Your task to perform on an android device: change your default location settings in chrome Image 0: 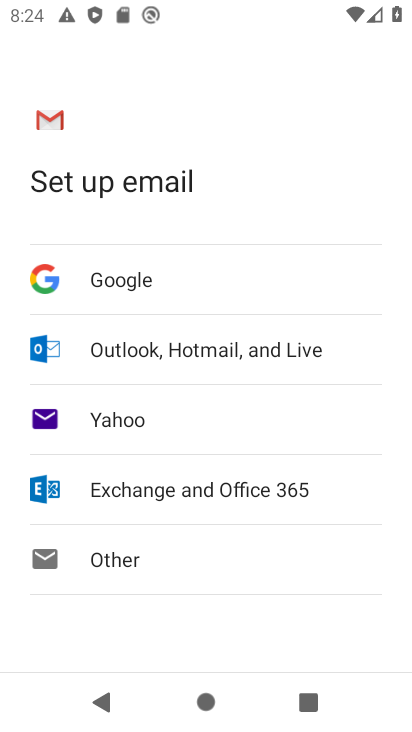
Step 0: press home button
Your task to perform on an android device: change your default location settings in chrome Image 1: 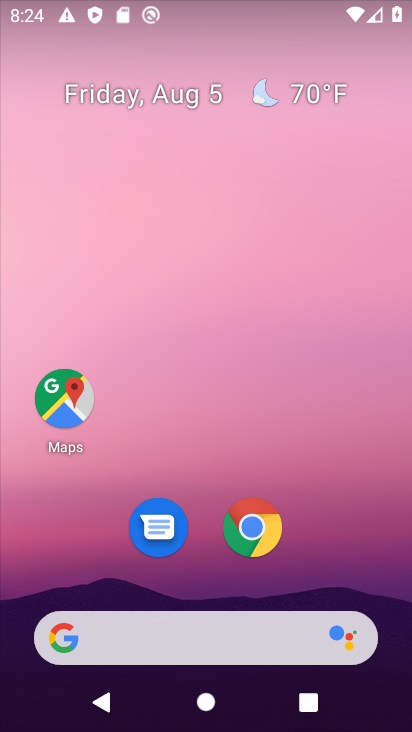
Step 1: click (260, 552)
Your task to perform on an android device: change your default location settings in chrome Image 2: 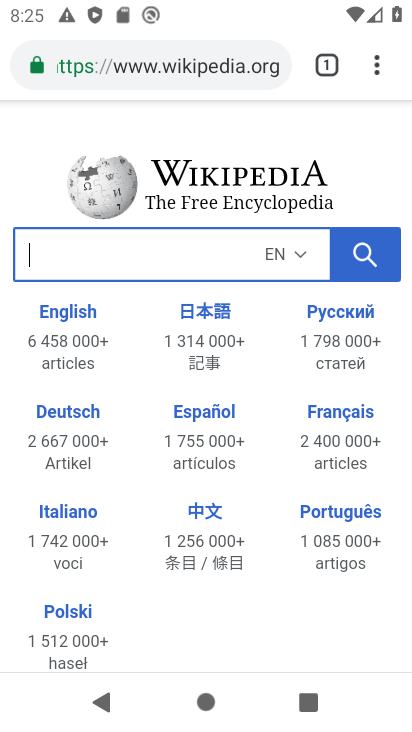
Step 2: click (377, 60)
Your task to perform on an android device: change your default location settings in chrome Image 3: 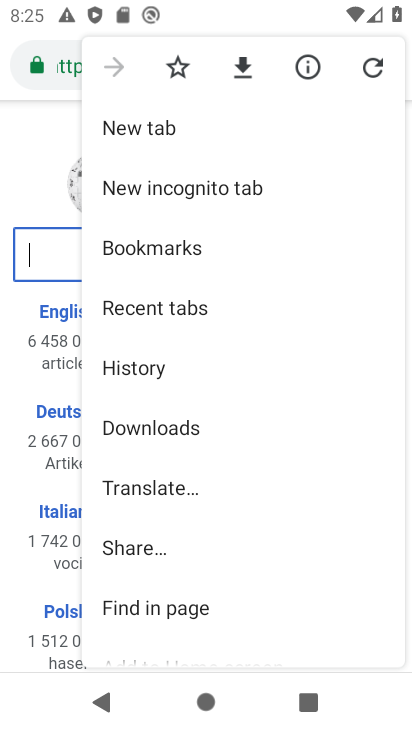
Step 3: drag from (193, 519) to (180, 123)
Your task to perform on an android device: change your default location settings in chrome Image 4: 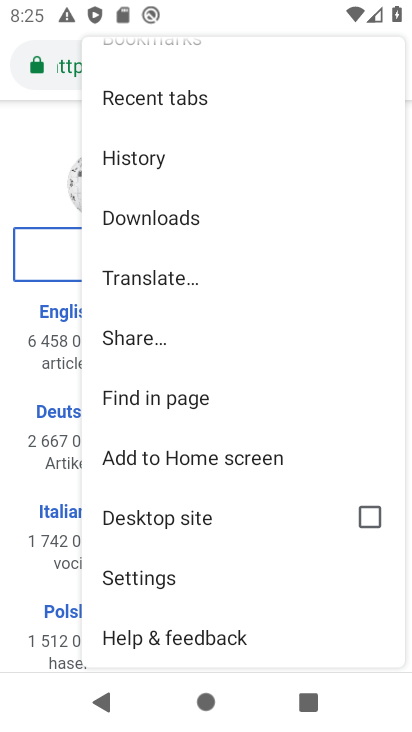
Step 4: click (229, 560)
Your task to perform on an android device: change your default location settings in chrome Image 5: 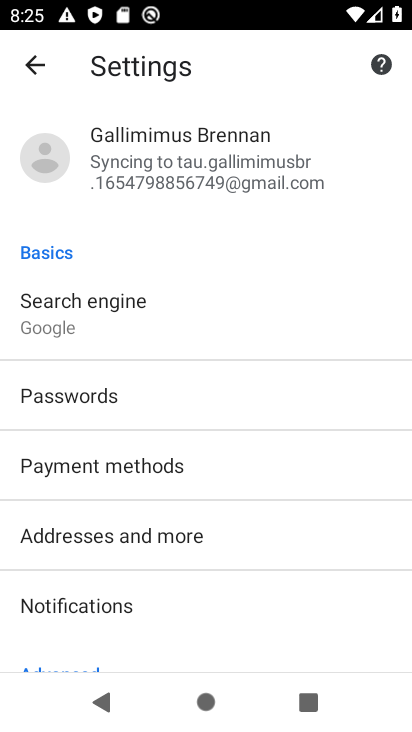
Step 5: drag from (210, 605) to (212, 98)
Your task to perform on an android device: change your default location settings in chrome Image 6: 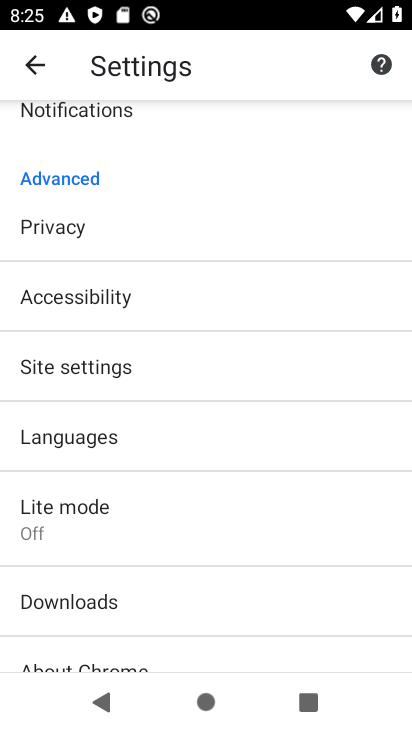
Step 6: drag from (151, 642) to (158, 266)
Your task to perform on an android device: change your default location settings in chrome Image 7: 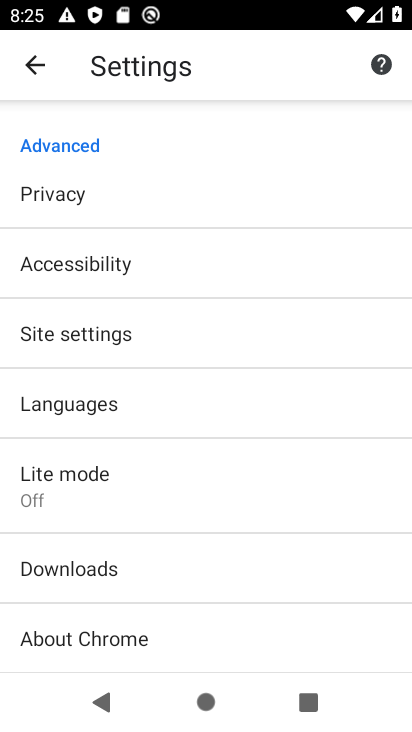
Step 7: click (103, 351)
Your task to perform on an android device: change your default location settings in chrome Image 8: 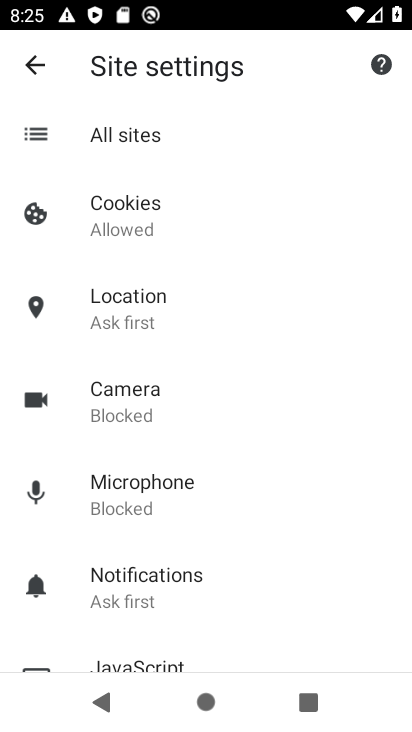
Step 8: click (135, 309)
Your task to perform on an android device: change your default location settings in chrome Image 9: 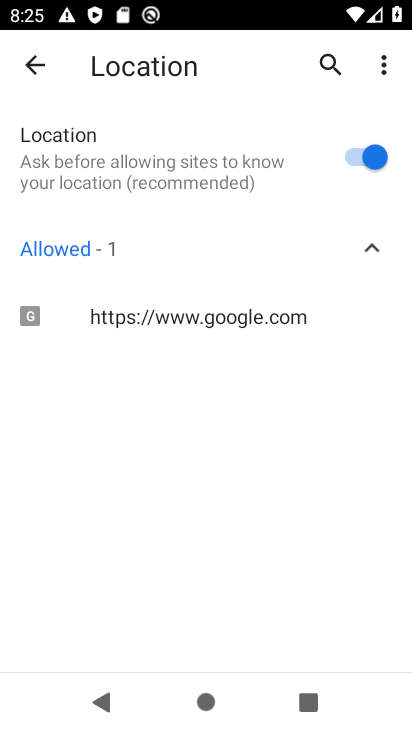
Step 9: click (356, 160)
Your task to perform on an android device: change your default location settings in chrome Image 10: 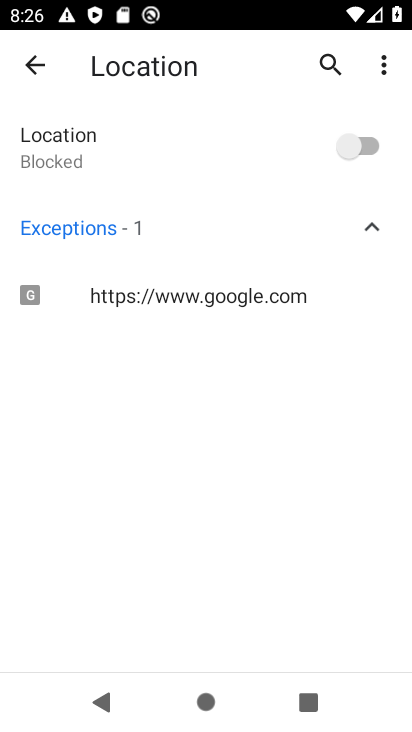
Step 10: task complete